Your task to perform on an android device: Play the last video I watched on Youtube Image 0: 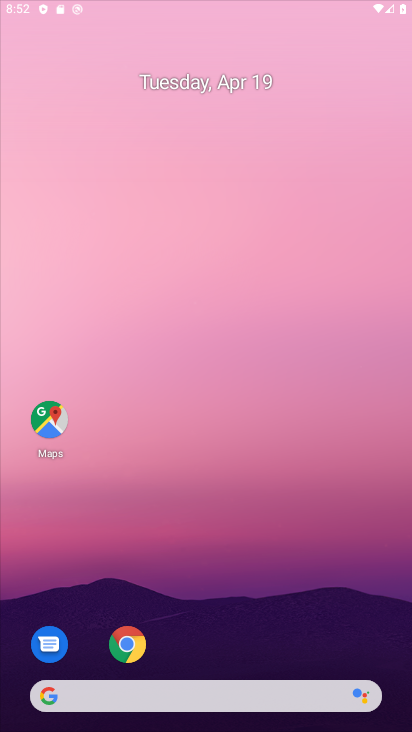
Step 0: drag from (339, 616) to (358, 73)
Your task to perform on an android device: Play the last video I watched on Youtube Image 1: 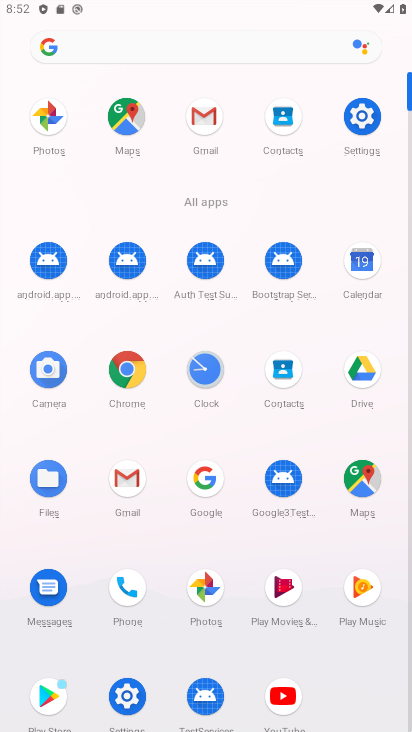
Step 1: click (308, 697)
Your task to perform on an android device: Play the last video I watched on Youtube Image 2: 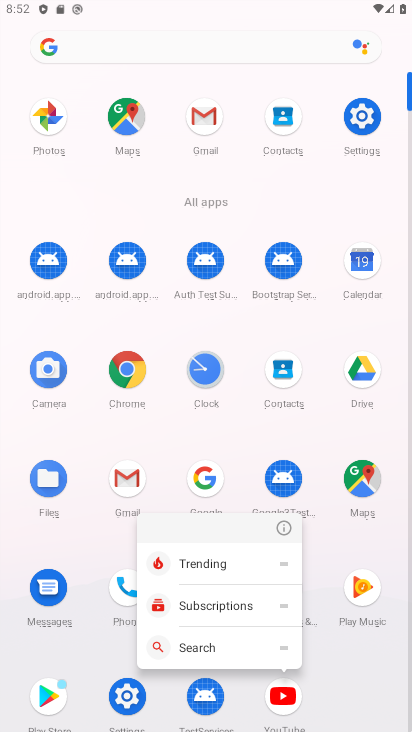
Step 2: click (272, 698)
Your task to perform on an android device: Play the last video I watched on Youtube Image 3: 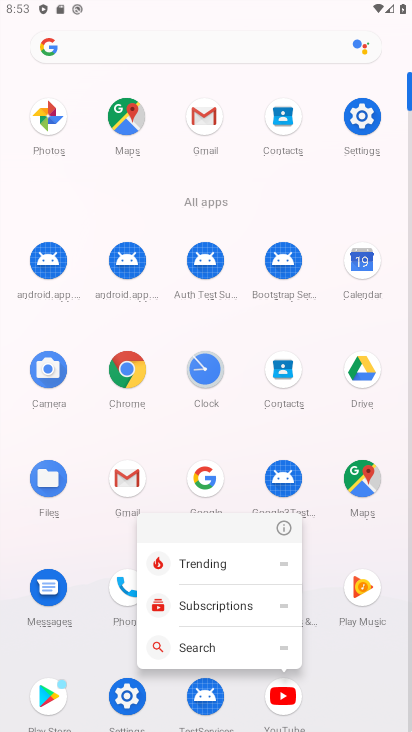
Step 3: click (329, 713)
Your task to perform on an android device: Play the last video I watched on Youtube Image 4: 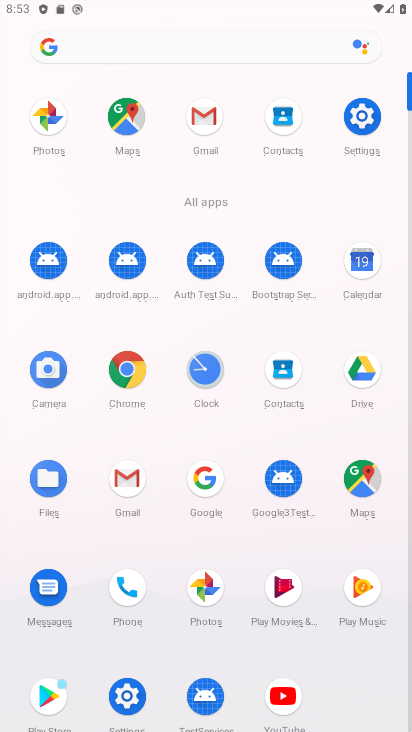
Step 4: click (274, 692)
Your task to perform on an android device: Play the last video I watched on Youtube Image 5: 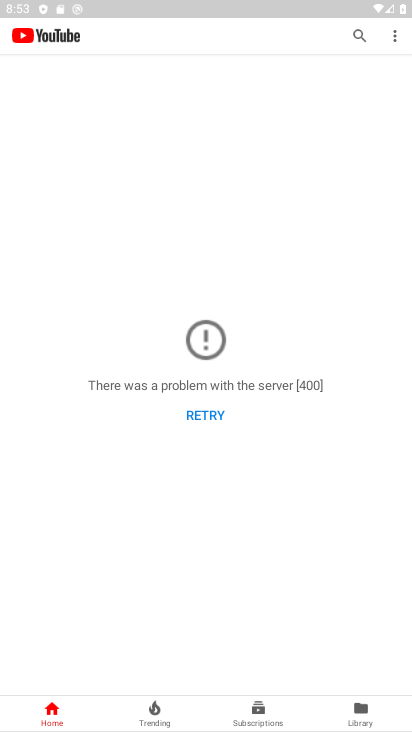
Step 5: click (359, 717)
Your task to perform on an android device: Play the last video I watched on Youtube Image 6: 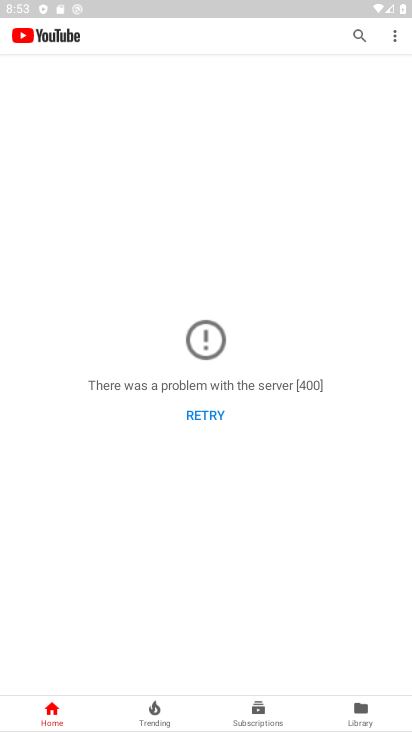
Step 6: click (350, 713)
Your task to perform on an android device: Play the last video I watched on Youtube Image 7: 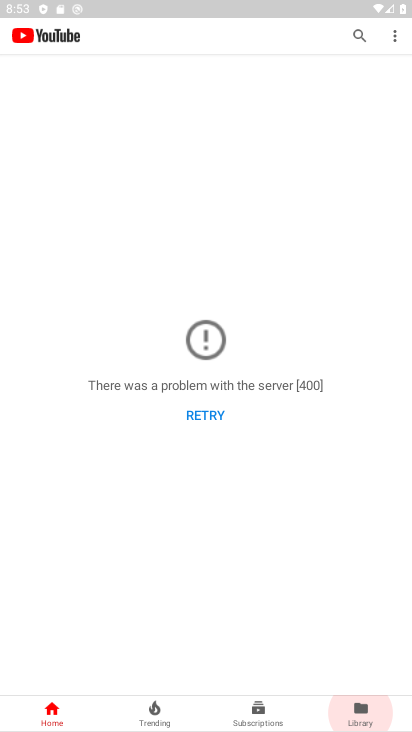
Step 7: click (350, 718)
Your task to perform on an android device: Play the last video I watched on Youtube Image 8: 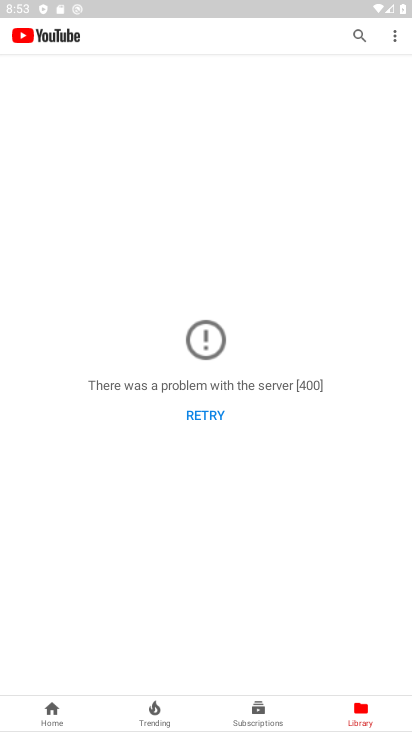
Step 8: click (350, 718)
Your task to perform on an android device: Play the last video I watched on Youtube Image 9: 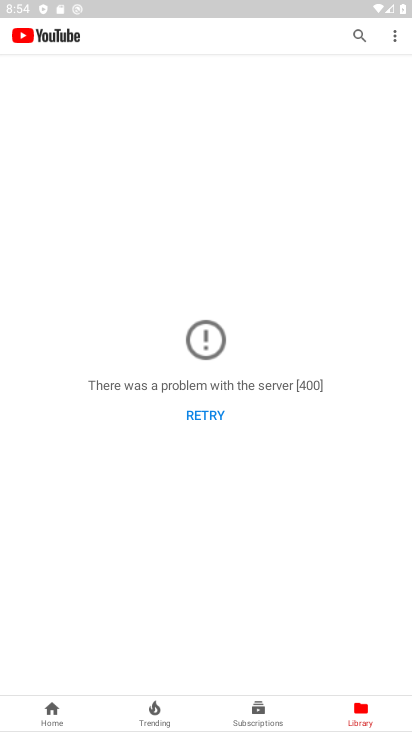
Step 9: task complete